Your task to perform on an android device: Open the Play Movies app and select the watchlist tab. Image 0: 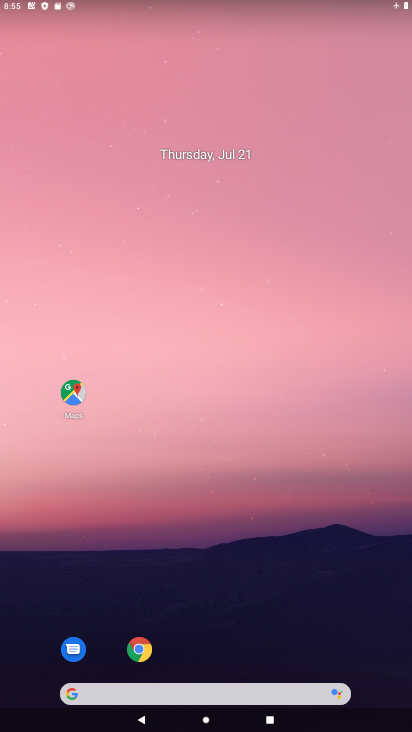
Step 0: drag from (225, 678) to (241, 253)
Your task to perform on an android device: Open the Play Movies app and select the watchlist tab. Image 1: 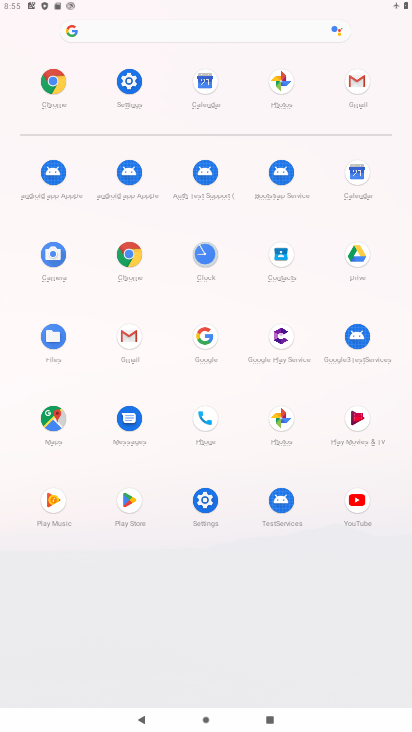
Step 1: click (353, 435)
Your task to perform on an android device: Open the Play Movies app and select the watchlist tab. Image 2: 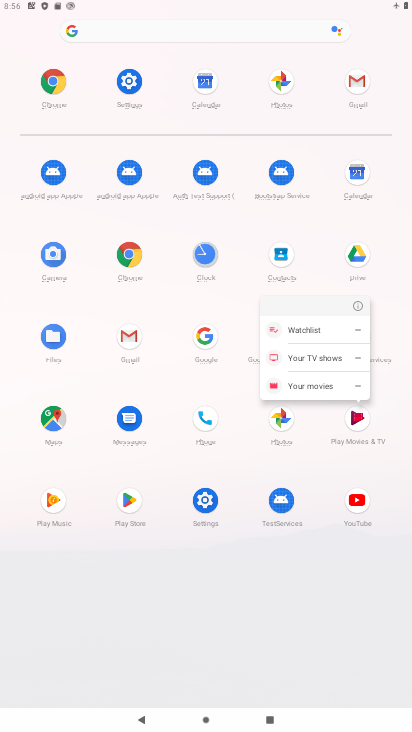
Step 2: click (367, 440)
Your task to perform on an android device: Open the Play Movies app and select the watchlist tab. Image 3: 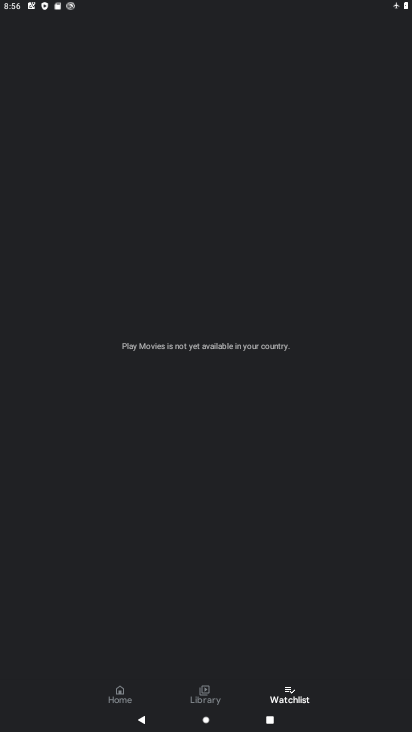
Step 3: task complete